Your task to perform on an android device: find photos in the google photos app Image 0: 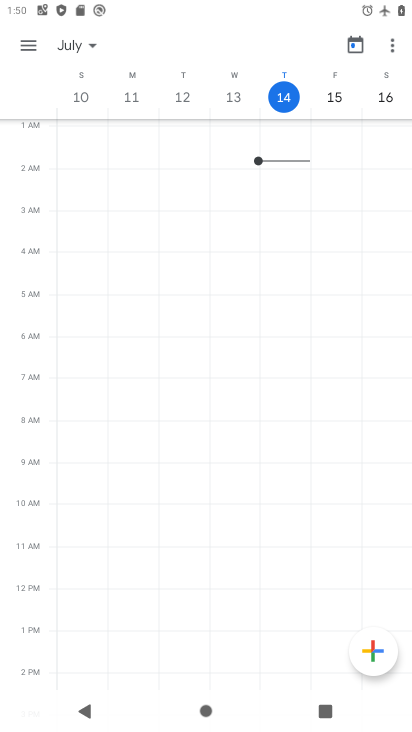
Step 0: press home button
Your task to perform on an android device: find photos in the google photos app Image 1: 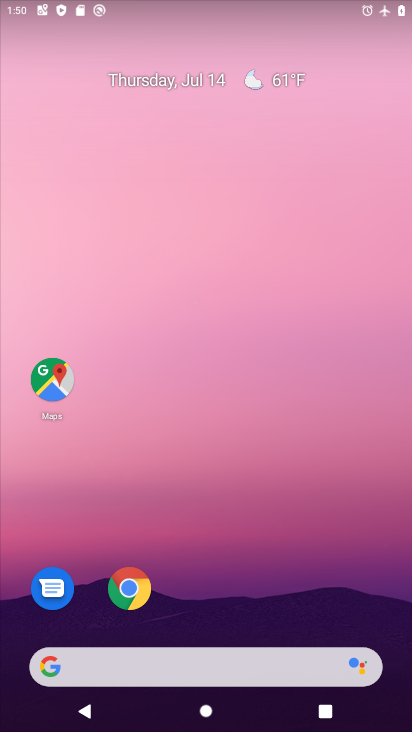
Step 1: drag from (226, 576) to (228, 235)
Your task to perform on an android device: find photos in the google photos app Image 2: 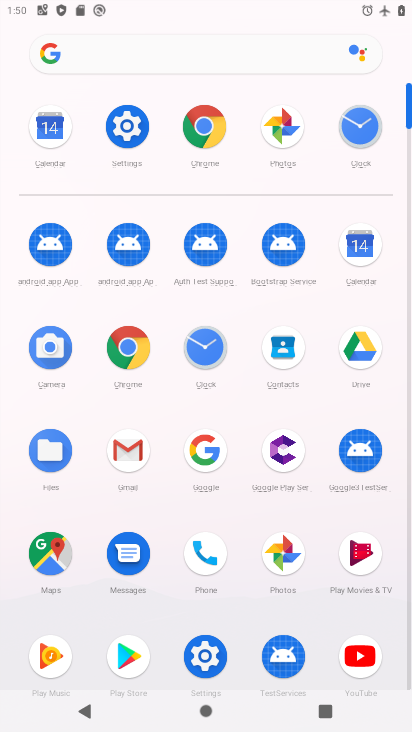
Step 2: click (286, 548)
Your task to perform on an android device: find photos in the google photos app Image 3: 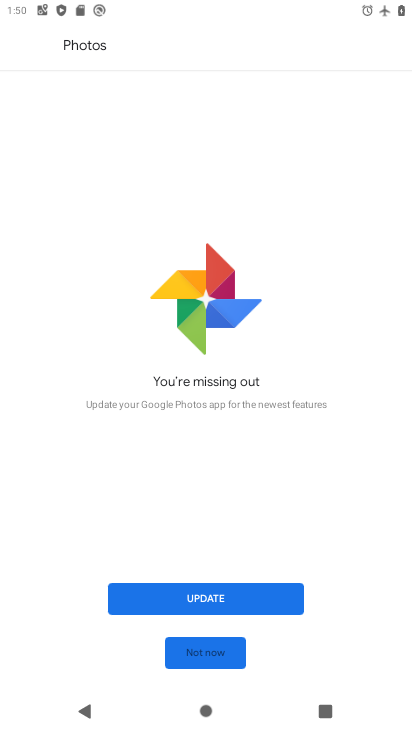
Step 3: click (184, 645)
Your task to perform on an android device: find photos in the google photos app Image 4: 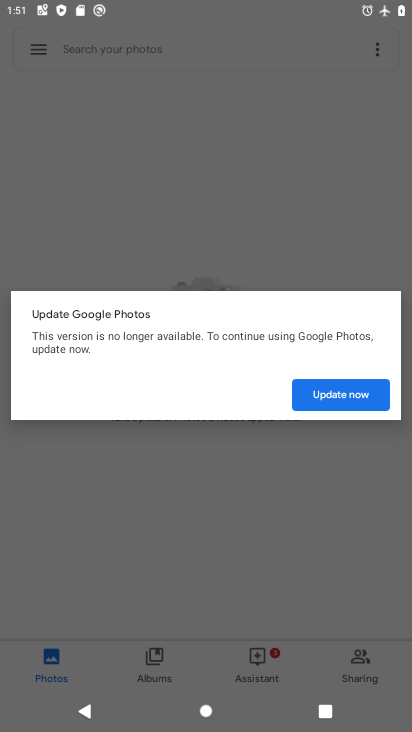
Step 4: click (345, 397)
Your task to perform on an android device: find photos in the google photos app Image 5: 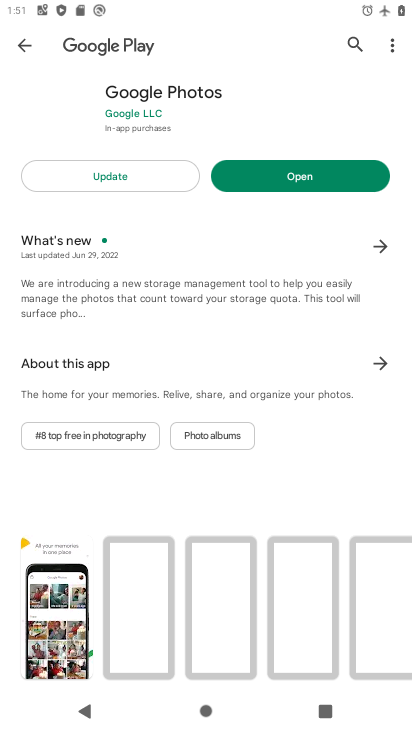
Step 5: press back button
Your task to perform on an android device: find photos in the google photos app Image 6: 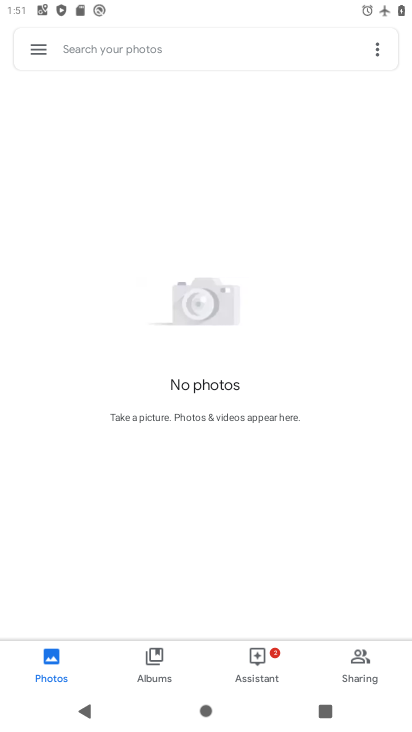
Step 6: click (147, 657)
Your task to perform on an android device: find photos in the google photos app Image 7: 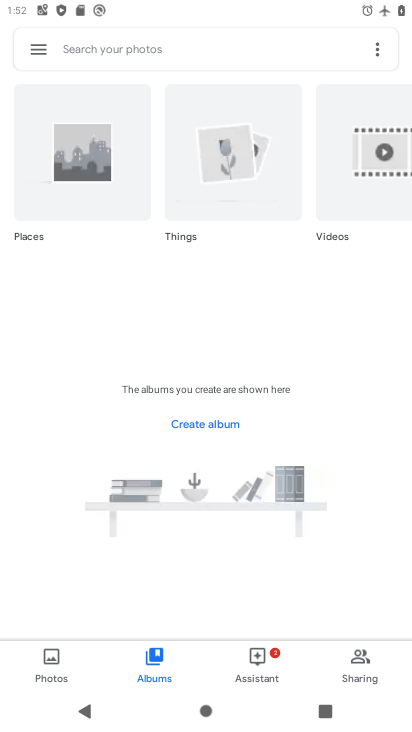
Step 7: task complete